Your task to perform on an android device: Open Google Image 0: 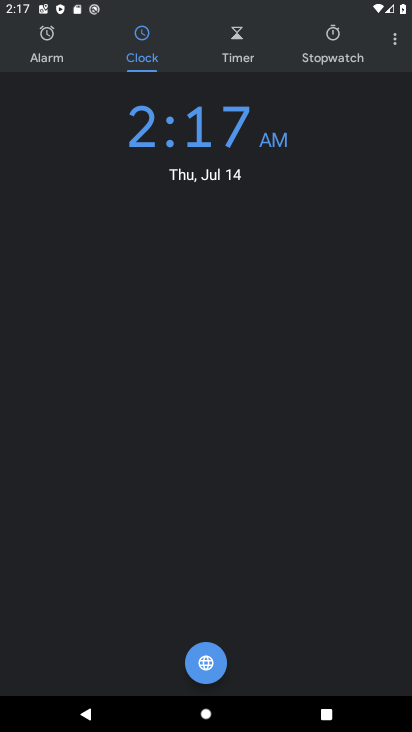
Step 0: press back button
Your task to perform on an android device: Open Google Image 1: 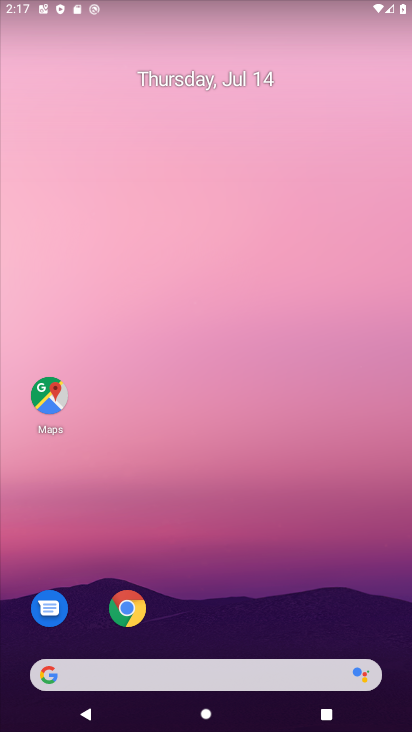
Step 1: drag from (212, 559) to (269, 11)
Your task to perform on an android device: Open Google Image 2: 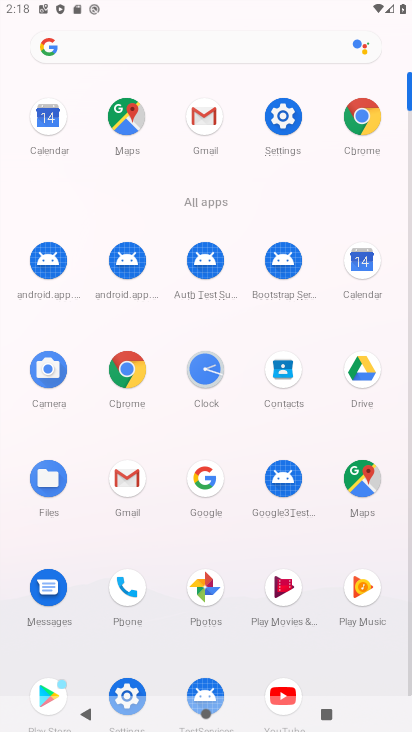
Step 2: click (195, 479)
Your task to perform on an android device: Open Google Image 3: 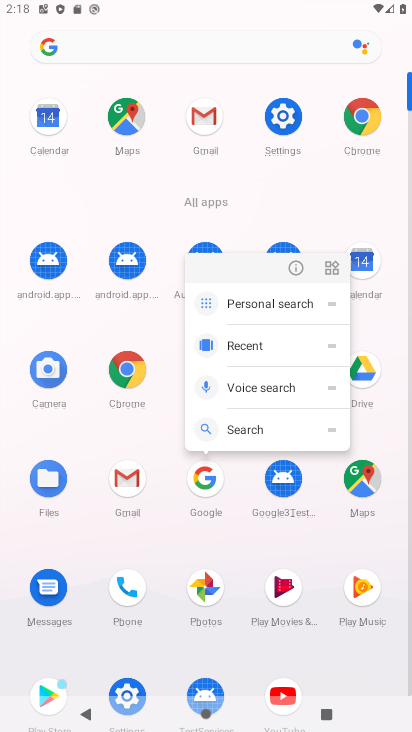
Step 3: click (209, 473)
Your task to perform on an android device: Open Google Image 4: 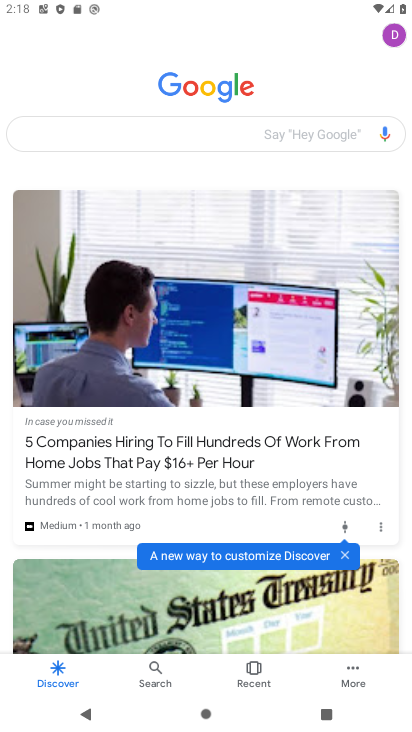
Step 4: task complete